Your task to perform on an android device: turn pop-ups off in chrome Image 0: 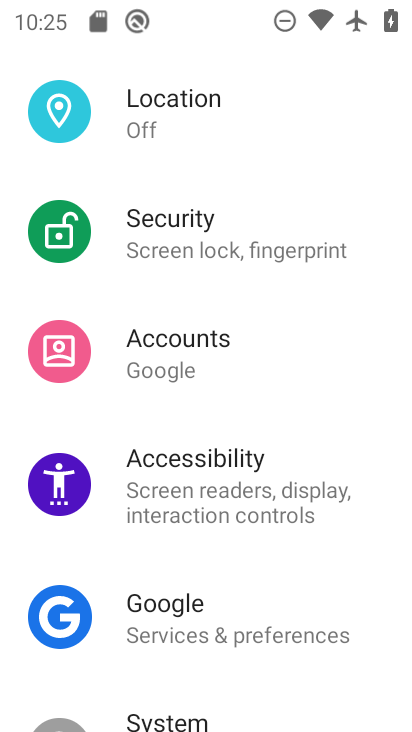
Step 0: press home button
Your task to perform on an android device: turn pop-ups off in chrome Image 1: 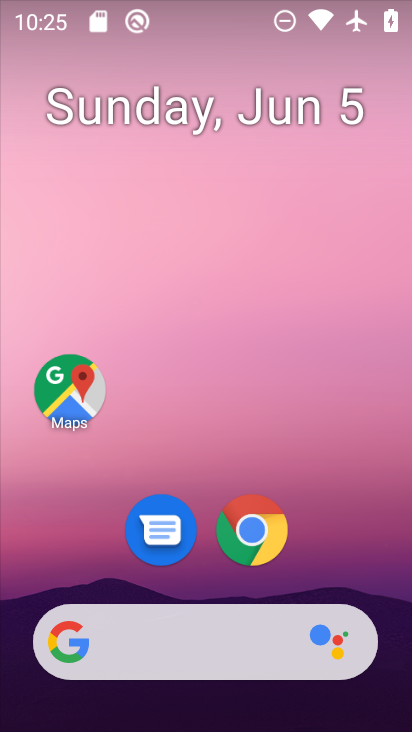
Step 1: click (253, 552)
Your task to perform on an android device: turn pop-ups off in chrome Image 2: 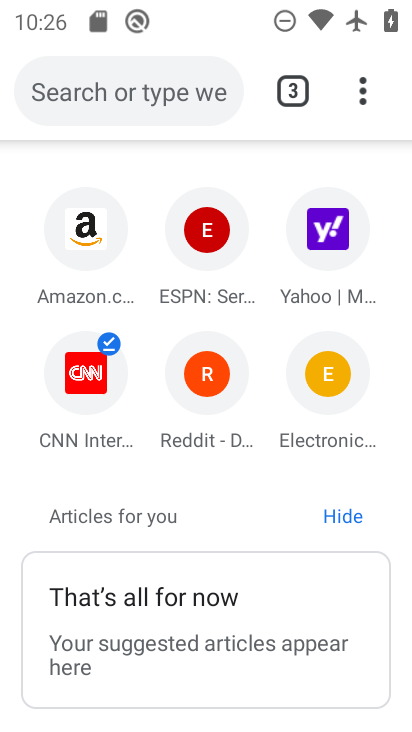
Step 2: click (360, 100)
Your task to perform on an android device: turn pop-ups off in chrome Image 3: 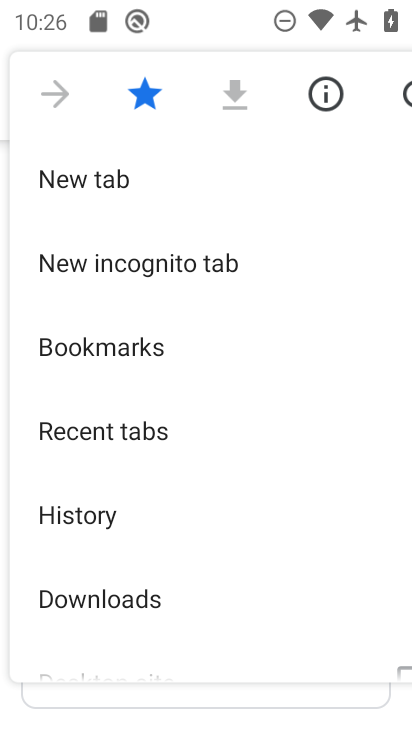
Step 3: drag from (232, 638) to (167, 106)
Your task to perform on an android device: turn pop-ups off in chrome Image 4: 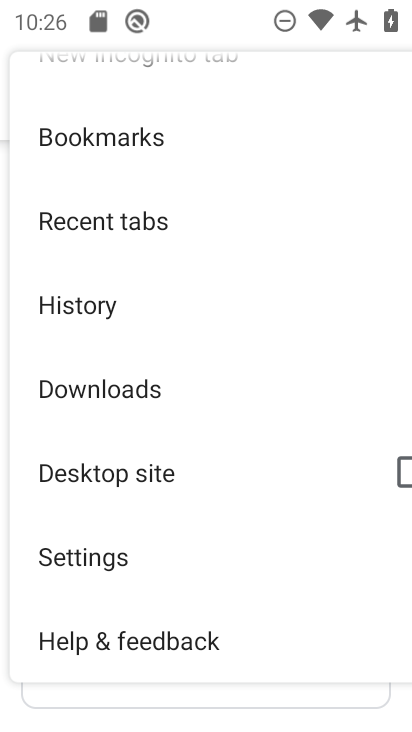
Step 4: click (89, 549)
Your task to perform on an android device: turn pop-ups off in chrome Image 5: 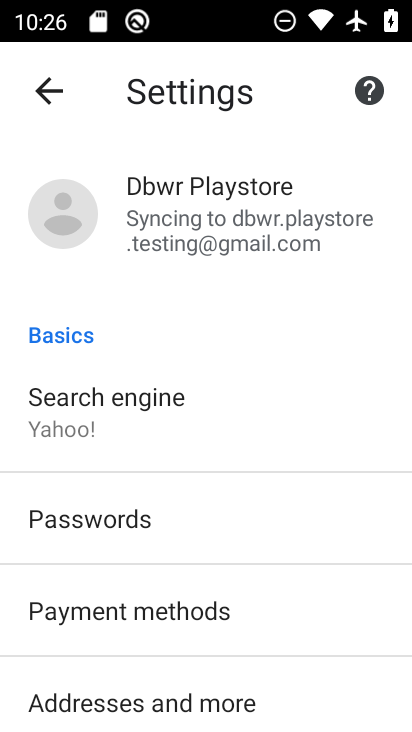
Step 5: drag from (260, 631) to (217, 236)
Your task to perform on an android device: turn pop-ups off in chrome Image 6: 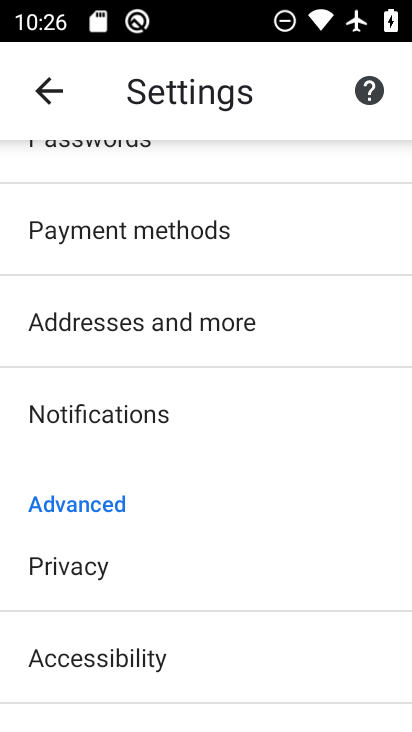
Step 6: drag from (256, 515) to (225, 90)
Your task to perform on an android device: turn pop-ups off in chrome Image 7: 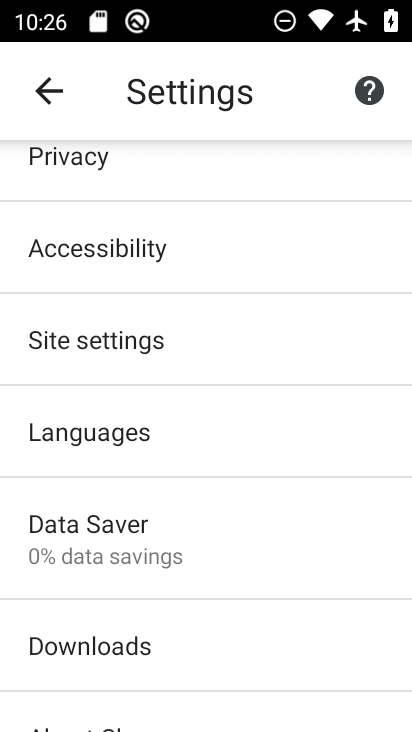
Step 7: click (97, 336)
Your task to perform on an android device: turn pop-ups off in chrome Image 8: 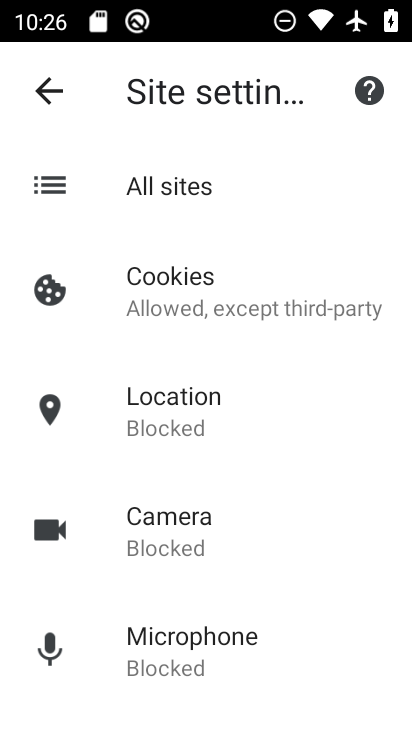
Step 8: drag from (271, 646) to (254, 301)
Your task to perform on an android device: turn pop-ups off in chrome Image 9: 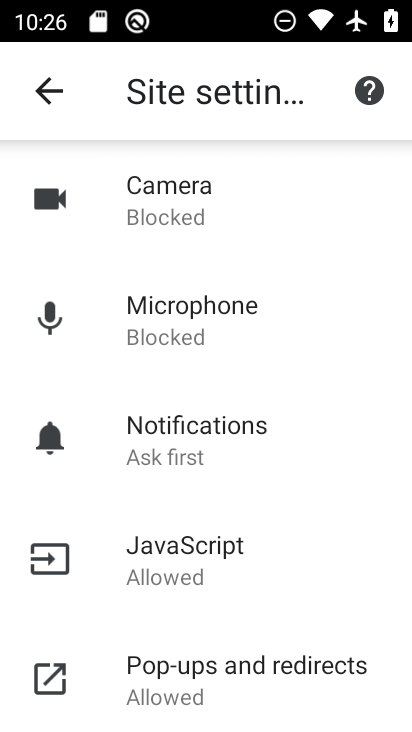
Step 9: drag from (281, 609) to (262, 387)
Your task to perform on an android device: turn pop-ups off in chrome Image 10: 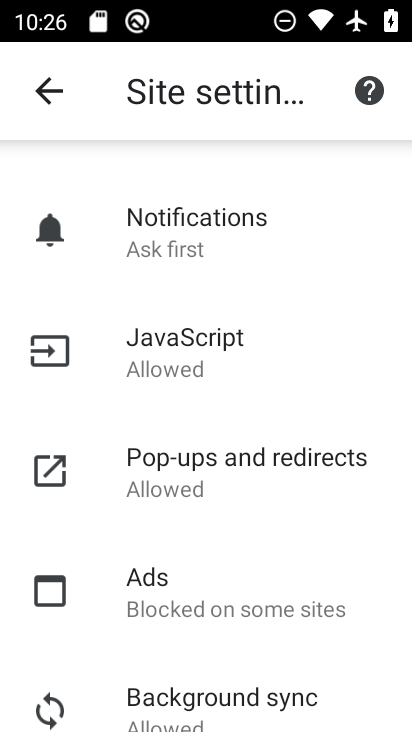
Step 10: click (162, 475)
Your task to perform on an android device: turn pop-ups off in chrome Image 11: 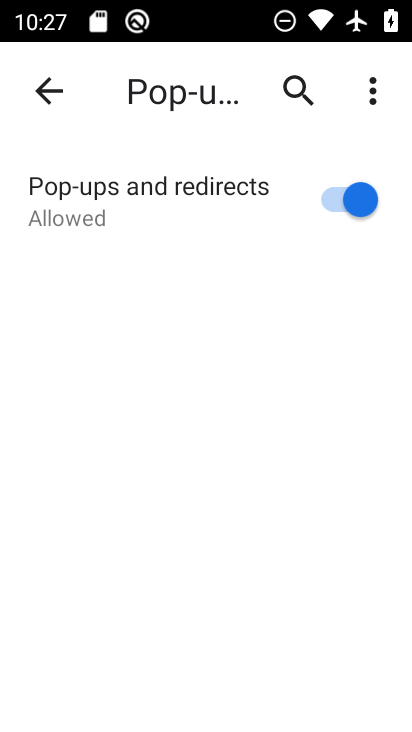
Step 11: click (327, 182)
Your task to perform on an android device: turn pop-ups off in chrome Image 12: 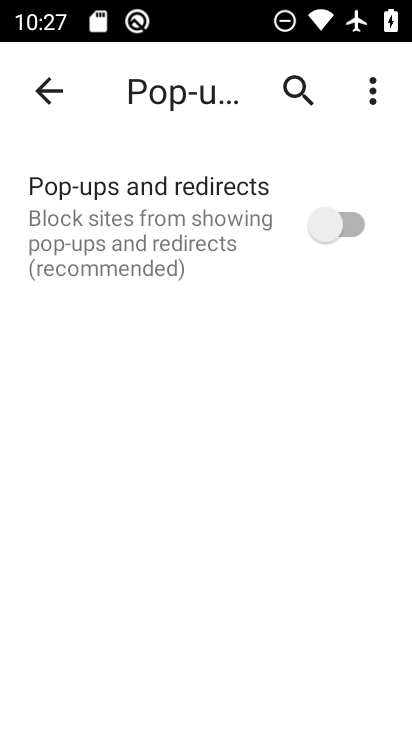
Step 12: task complete